Your task to perform on an android device: check battery use Image 0: 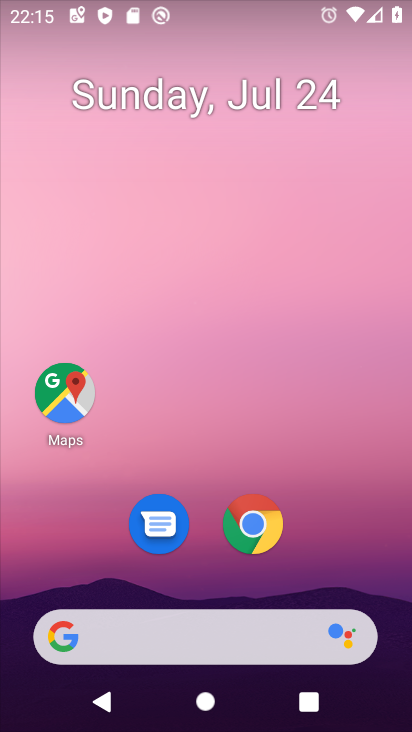
Step 0: drag from (245, 444) to (366, 46)
Your task to perform on an android device: check battery use Image 1: 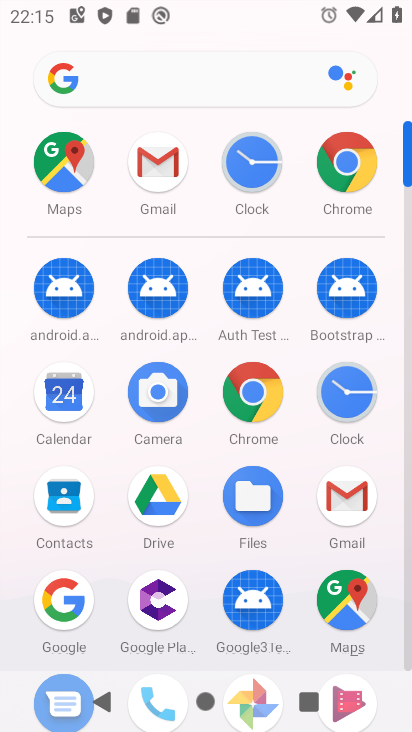
Step 1: drag from (226, 530) to (319, 83)
Your task to perform on an android device: check battery use Image 2: 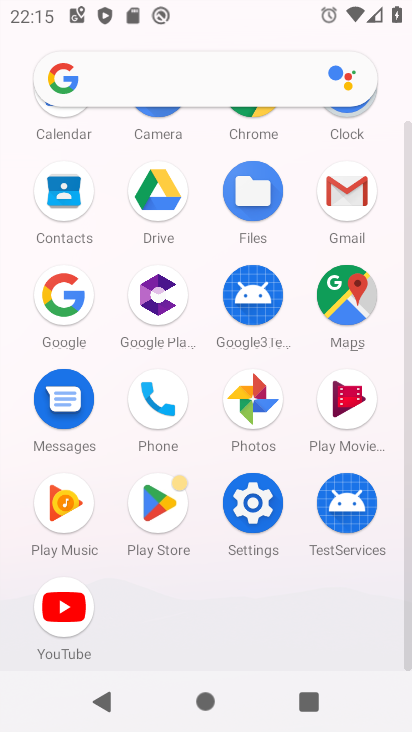
Step 2: click (254, 499)
Your task to perform on an android device: check battery use Image 3: 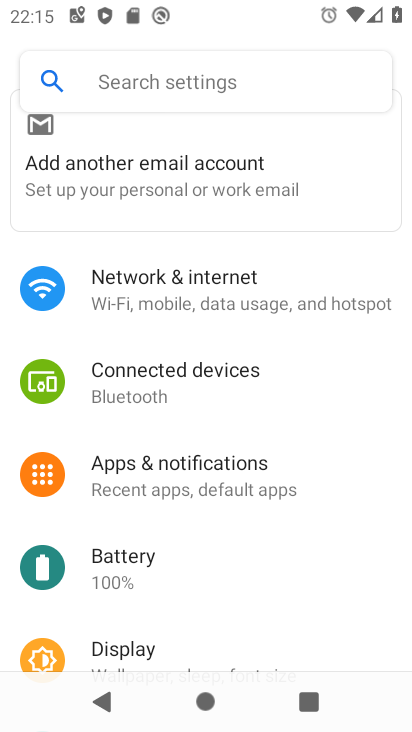
Step 3: click (153, 563)
Your task to perform on an android device: check battery use Image 4: 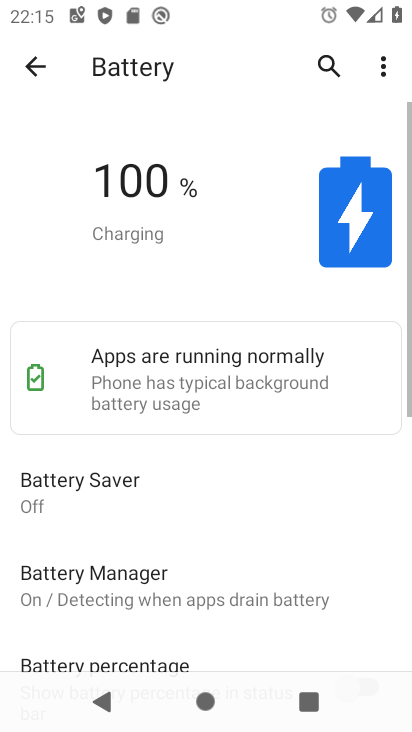
Step 4: click (382, 64)
Your task to perform on an android device: check battery use Image 5: 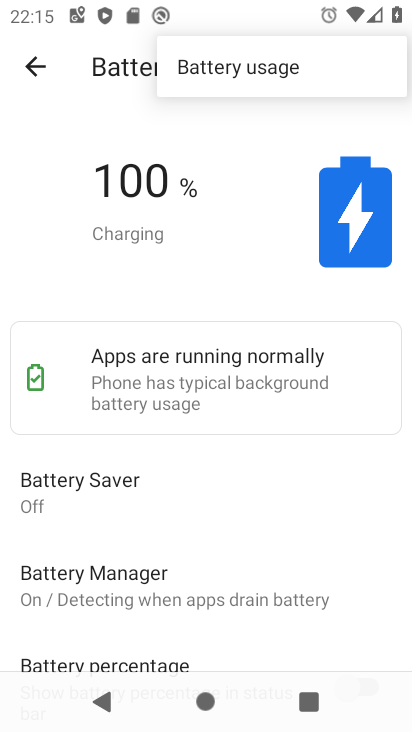
Step 5: click (280, 74)
Your task to perform on an android device: check battery use Image 6: 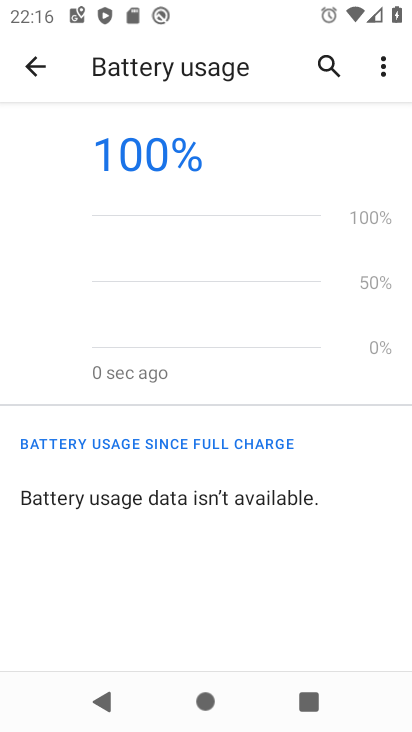
Step 6: task complete